Your task to perform on an android device: What's the weather going to be this weekend? Image 0: 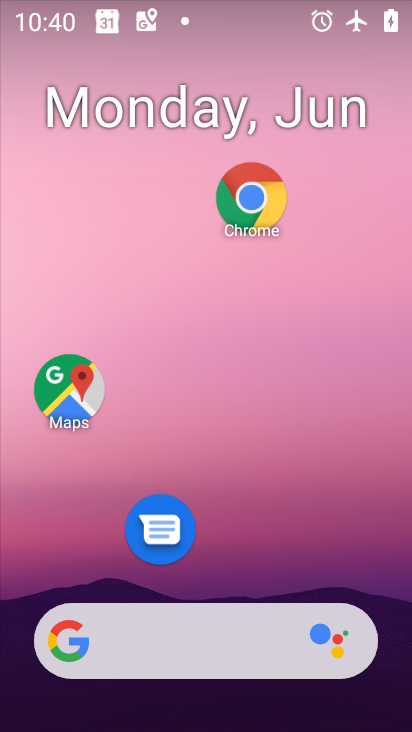
Step 0: drag from (226, 564) to (219, 164)
Your task to perform on an android device: What's the weather going to be this weekend? Image 1: 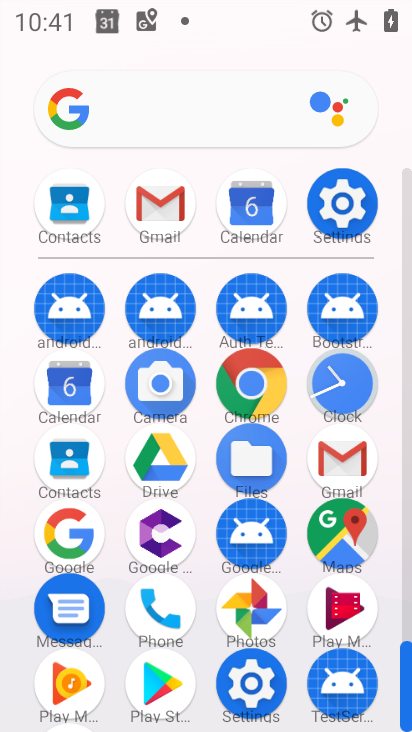
Step 1: click (78, 535)
Your task to perform on an android device: What's the weather going to be this weekend? Image 2: 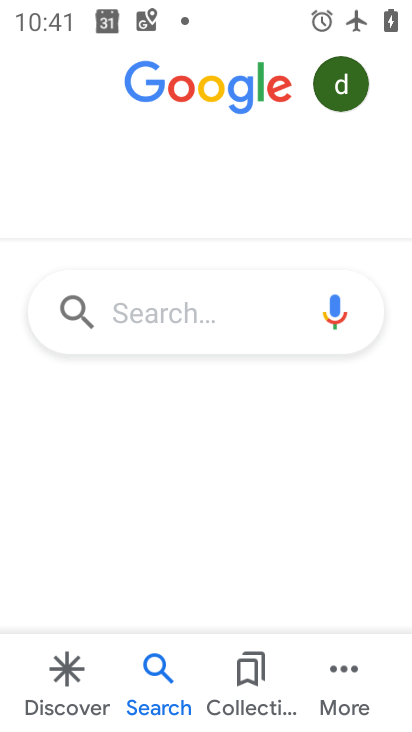
Step 2: click (171, 320)
Your task to perform on an android device: What's the weather going to be this weekend? Image 3: 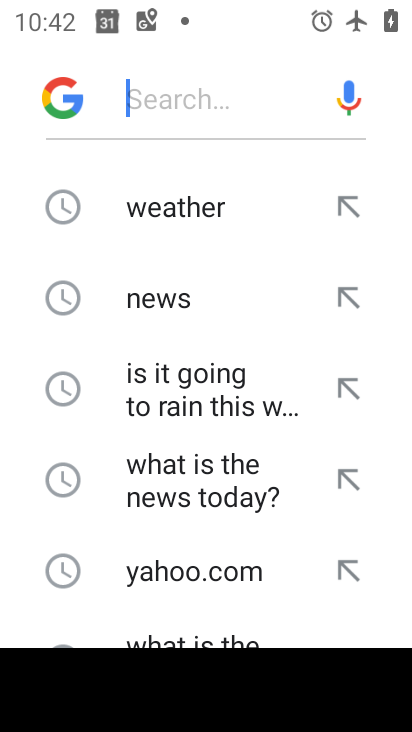
Step 3: click (182, 210)
Your task to perform on an android device: What's the weather going to be this weekend? Image 4: 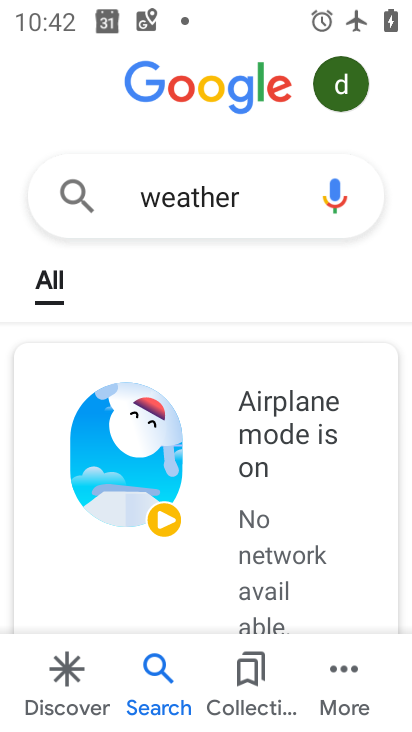
Step 4: task complete